Your task to perform on an android device: toggle sleep mode Image 0: 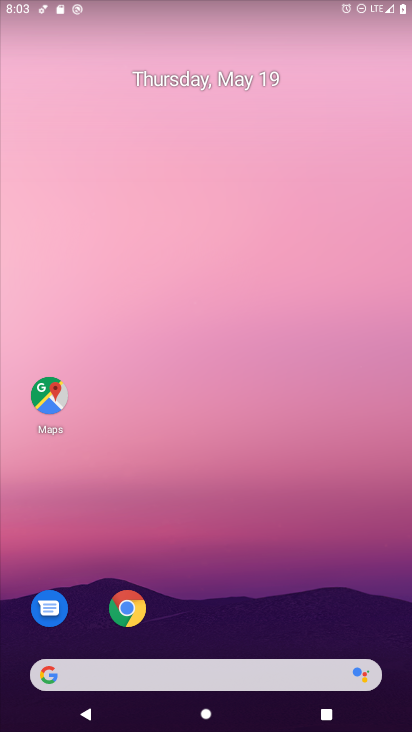
Step 0: drag from (396, 623) to (395, 112)
Your task to perform on an android device: toggle sleep mode Image 1: 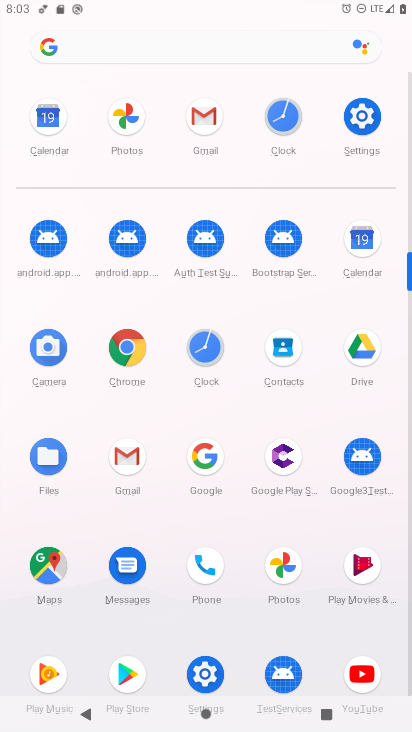
Step 1: click (367, 134)
Your task to perform on an android device: toggle sleep mode Image 2: 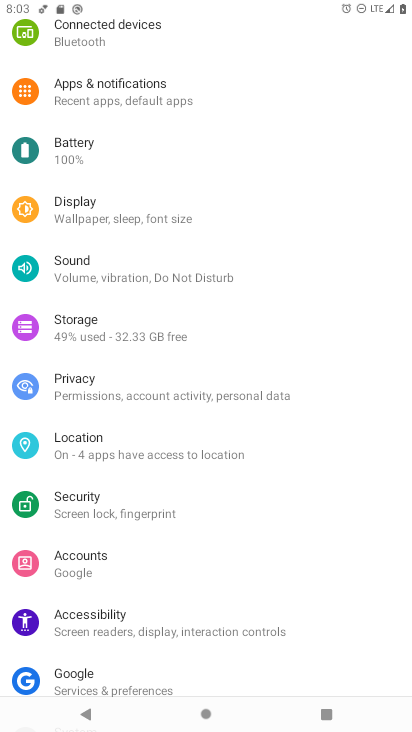
Step 2: click (125, 208)
Your task to perform on an android device: toggle sleep mode Image 3: 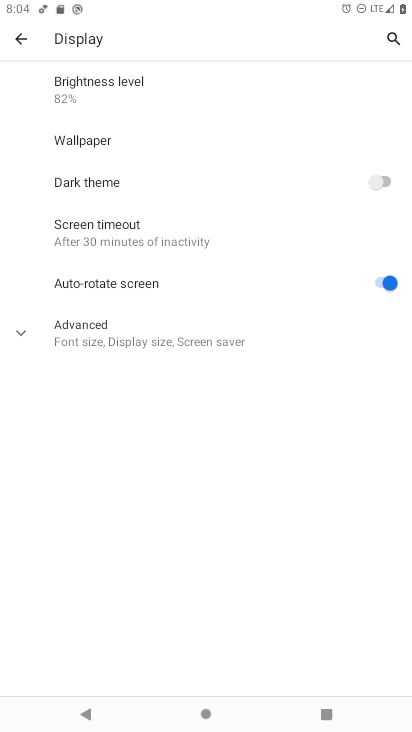
Step 3: click (112, 230)
Your task to perform on an android device: toggle sleep mode Image 4: 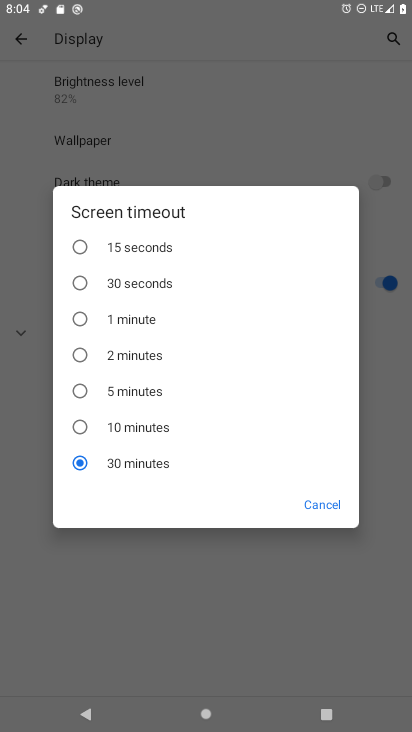
Step 4: click (81, 428)
Your task to perform on an android device: toggle sleep mode Image 5: 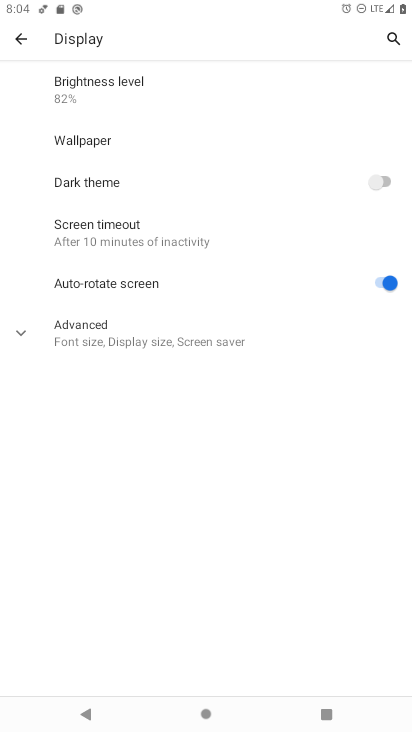
Step 5: task complete